Your task to perform on an android device: open the mobile data screen to see how much data has been used Image 0: 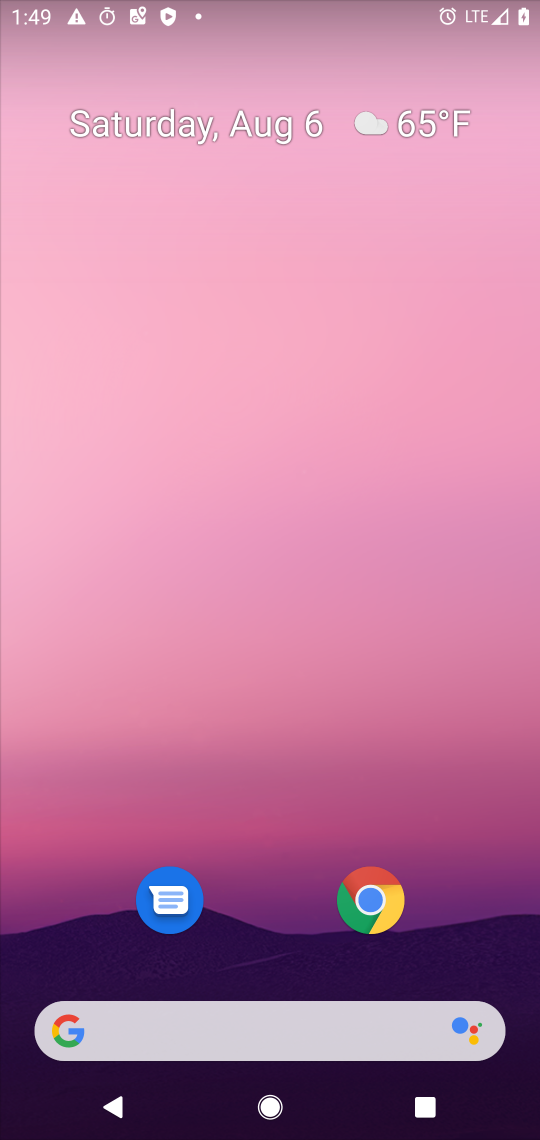
Step 0: drag from (281, 804) to (281, 54)
Your task to perform on an android device: open the mobile data screen to see how much data has been used Image 1: 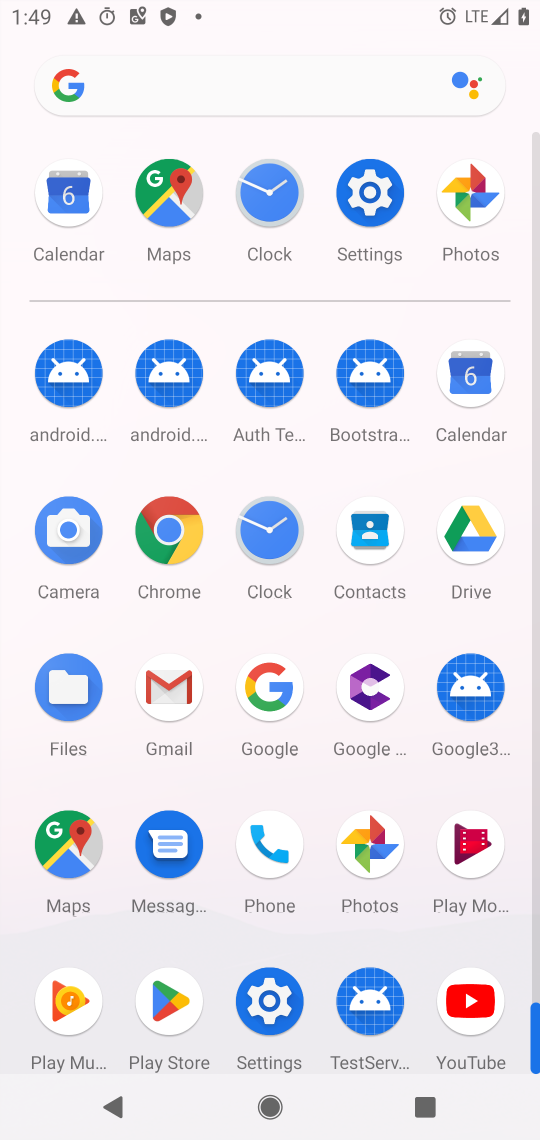
Step 1: click (376, 199)
Your task to perform on an android device: open the mobile data screen to see how much data has been used Image 2: 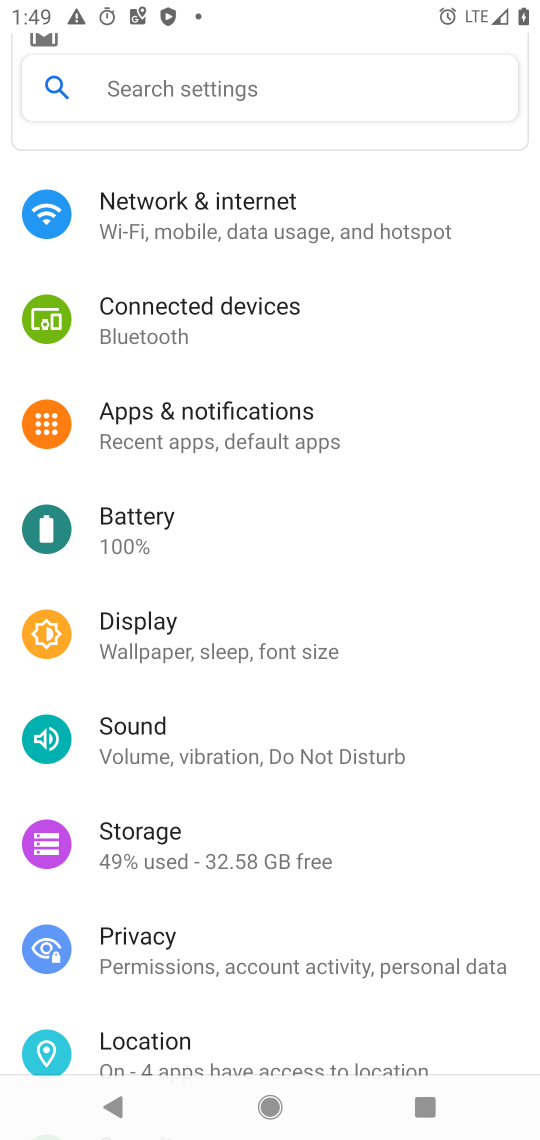
Step 2: click (211, 217)
Your task to perform on an android device: open the mobile data screen to see how much data has been used Image 3: 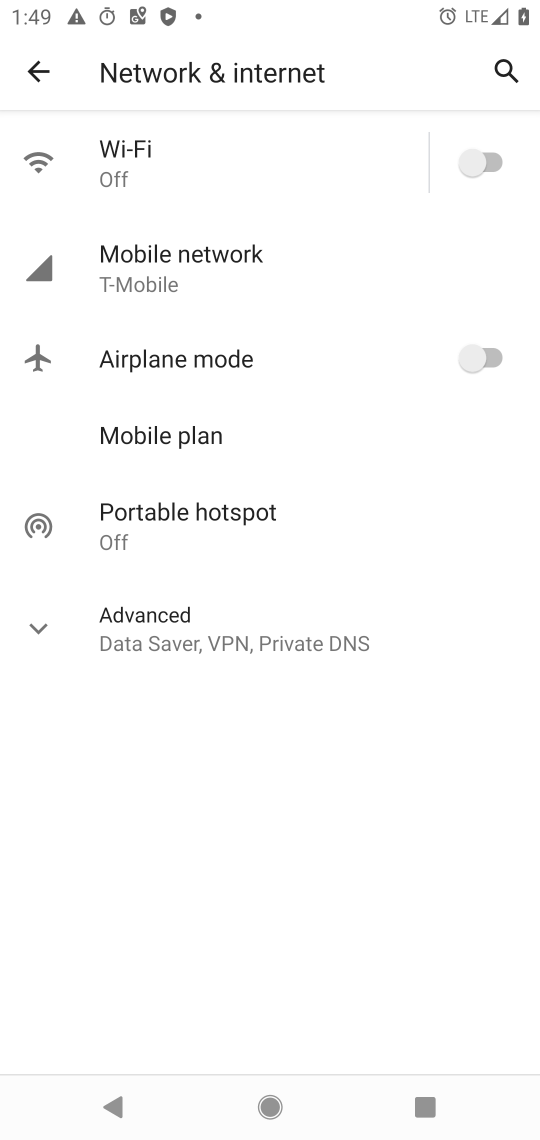
Step 3: click (184, 267)
Your task to perform on an android device: open the mobile data screen to see how much data has been used Image 4: 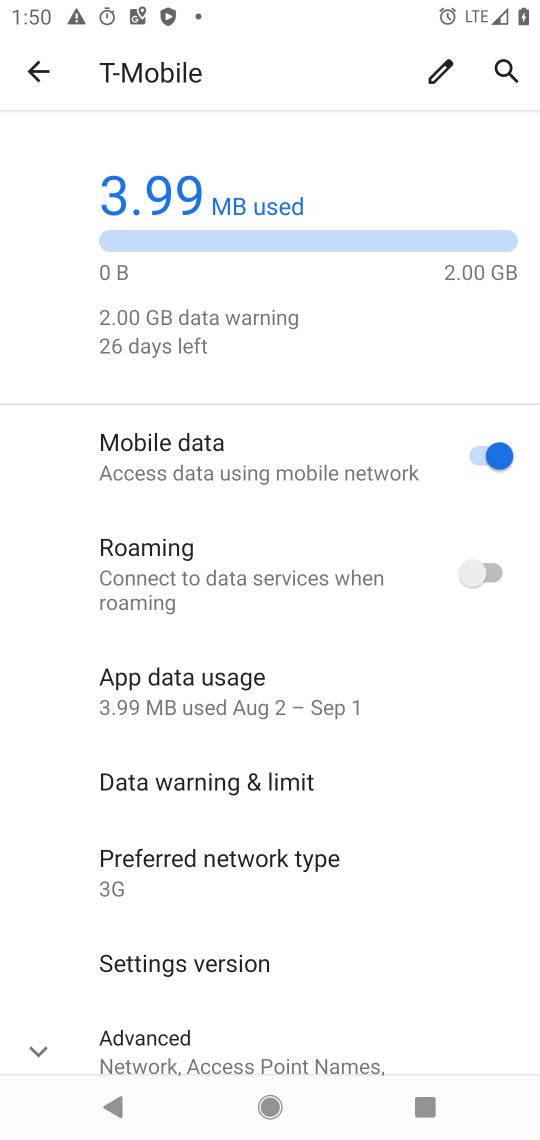
Step 4: click (191, 693)
Your task to perform on an android device: open the mobile data screen to see how much data has been used Image 5: 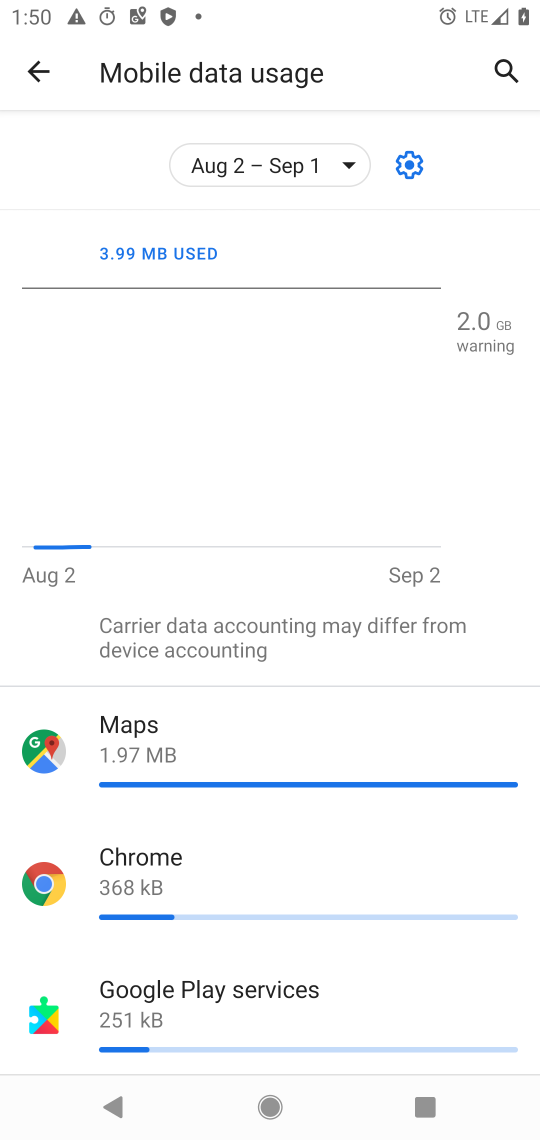
Step 5: task complete